Your task to perform on an android device: Show me the alarms in the clock app Image 0: 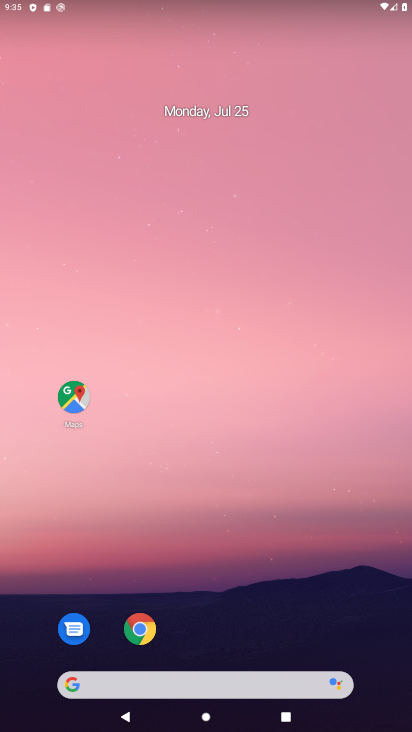
Step 0: drag from (265, 590) to (289, 48)
Your task to perform on an android device: Show me the alarms in the clock app Image 1: 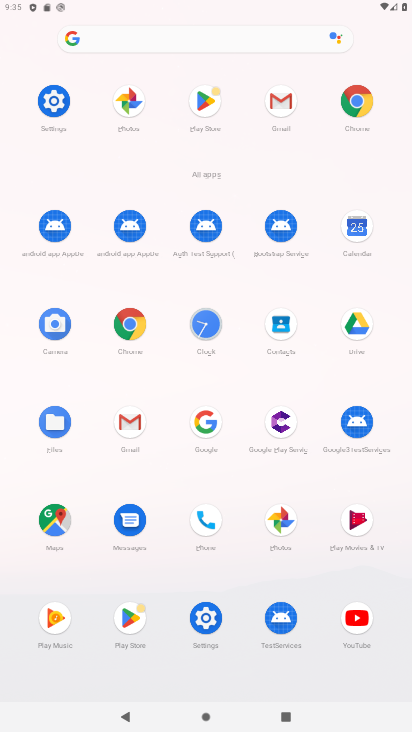
Step 1: click (192, 334)
Your task to perform on an android device: Show me the alarms in the clock app Image 2: 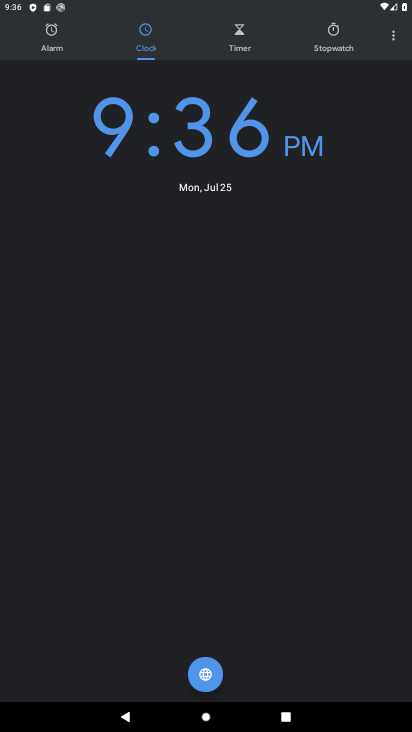
Step 2: click (47, 53)
Your task to perform on an android device: Show me the alarms in the clock app Image 3: 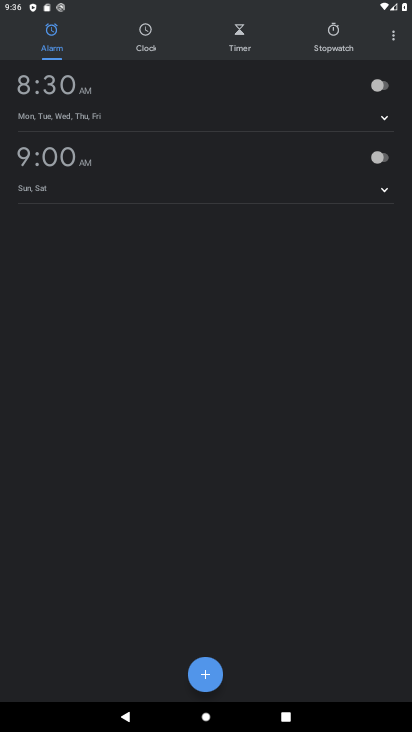
Step 3: task complete